Your task to perform on an android device: search for starred emails in the gmail app Image 0: 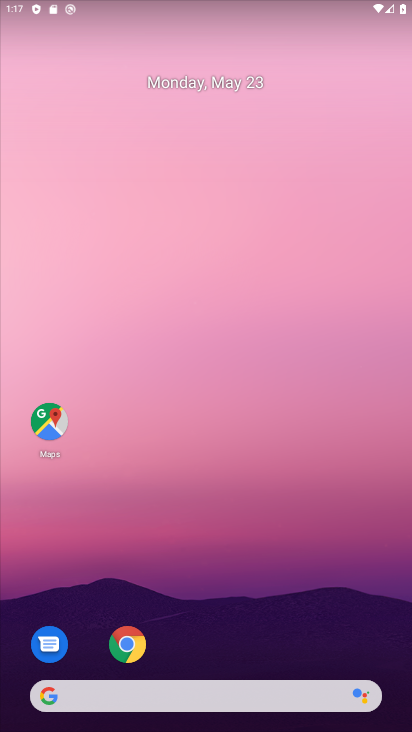
Step 0: drag from (237, 577) to (188, 53)
Your task to perform on an android device: search for starred emails in the gmail app Image 1: 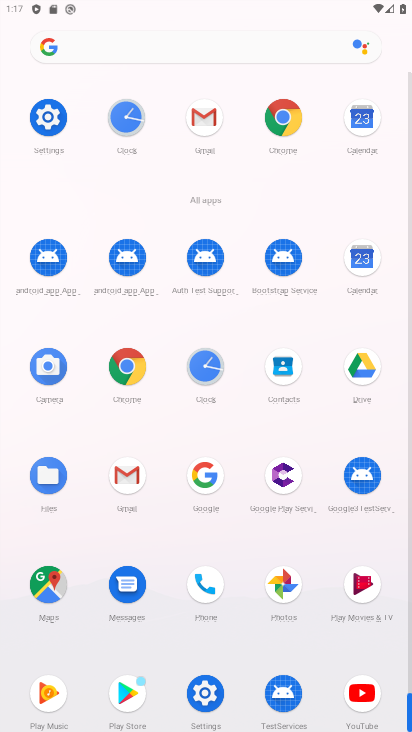
Step 1: drag from (11, 561) to (12, 210)
Your task to perform on an android device: search for starred emails in the gmail app Image 2: 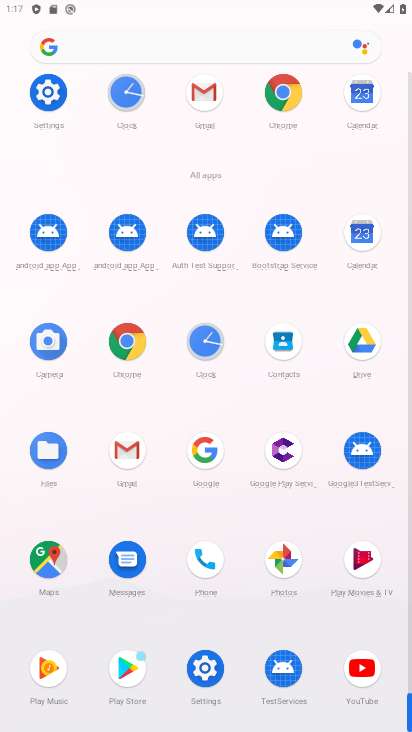
Step 2: click (123, 442)
Your task to perform on an android device: search for starred emails in the gmail app Image 3: 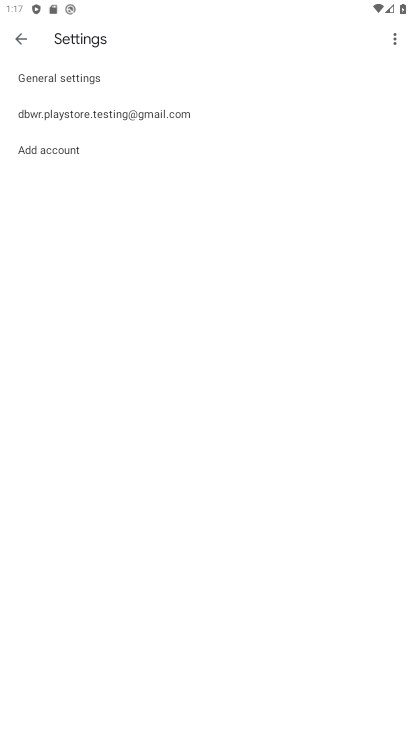
Step 3: click (18, 41)
Your task to perform on an android device: search for starred emails in the gmail app Image 4: 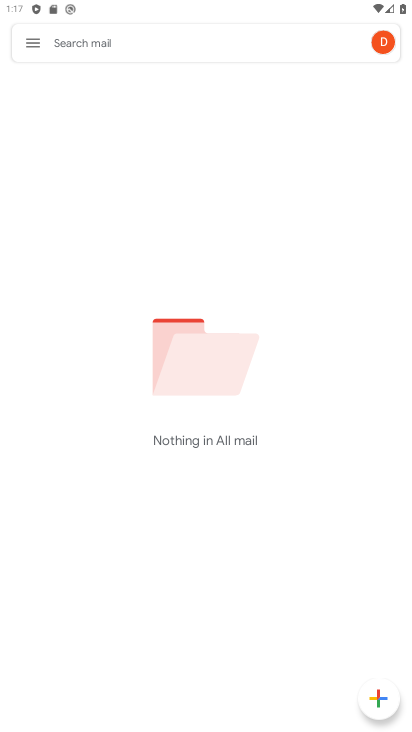
Step 4: click (35, 40)
Your task to perform on an android device: search for starred emails in the gmail app Image 5: 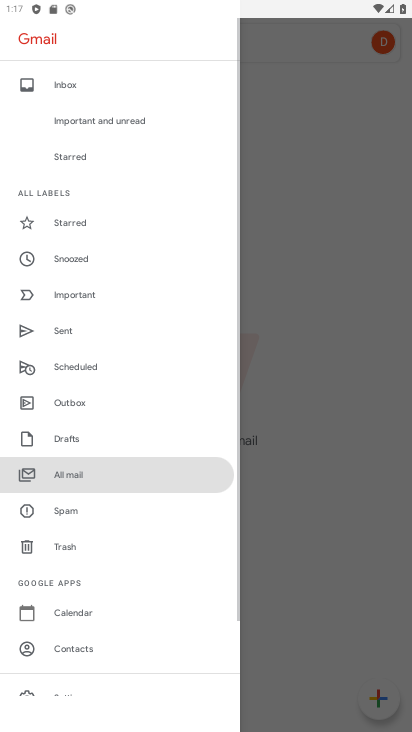
Step 5: drag from (163, 189) to (166, 463)
Your task to perform on an android device: search for starred emails in the gmail app Image 6: 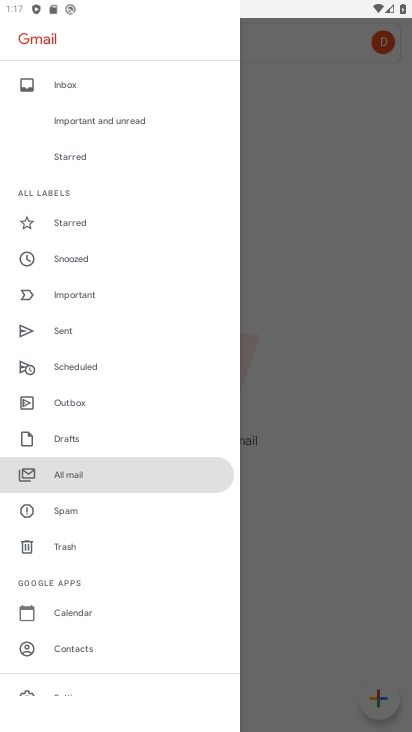
Step 6: click (82, 219)
Your task to perform on an android device: search for starred emails in the gmail app Image 7: 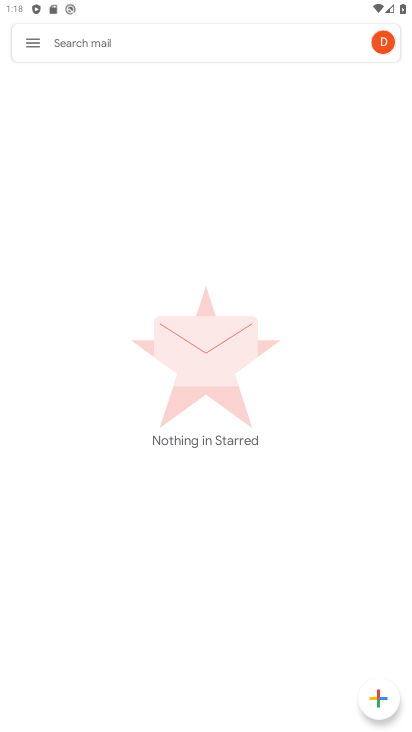
Step 7: task complete